Your task to perform on an android device: open app "Facebook Lite" (install if not already installed) Image 0: 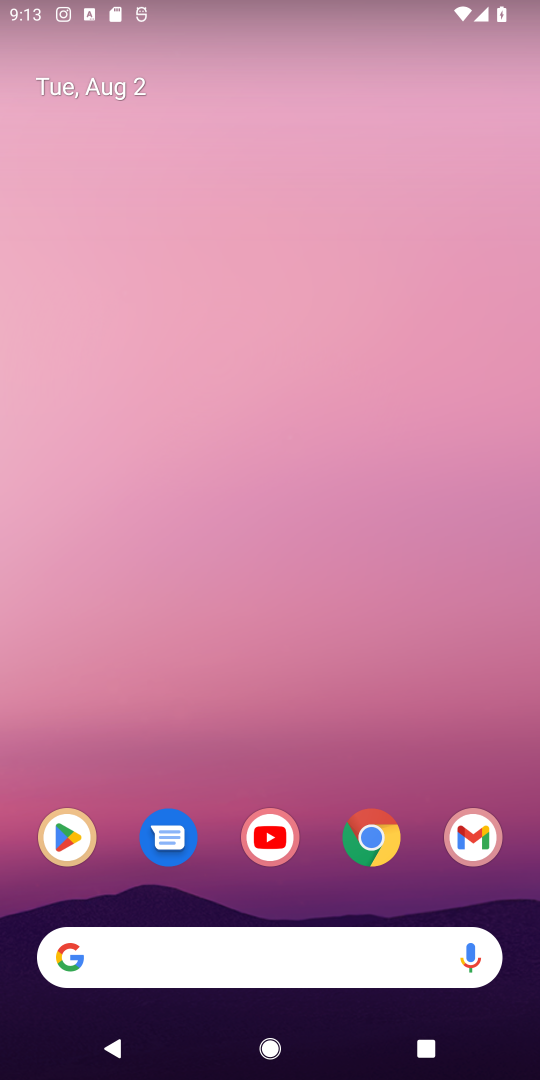
Step 0: click (64, 844)
Your task to perform on an android device: open app "Facebook Lite" (install if not already installed) Image 1: 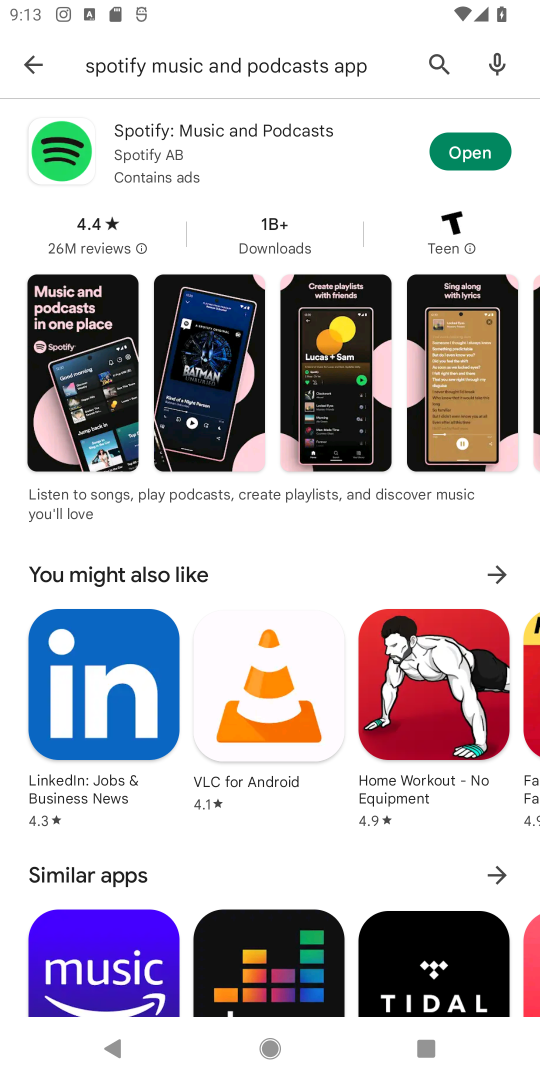
Step 1: click (428, 71)
Your task to perform on an android device: open app "Facebook Lite" (install if not already installed) Image 2: 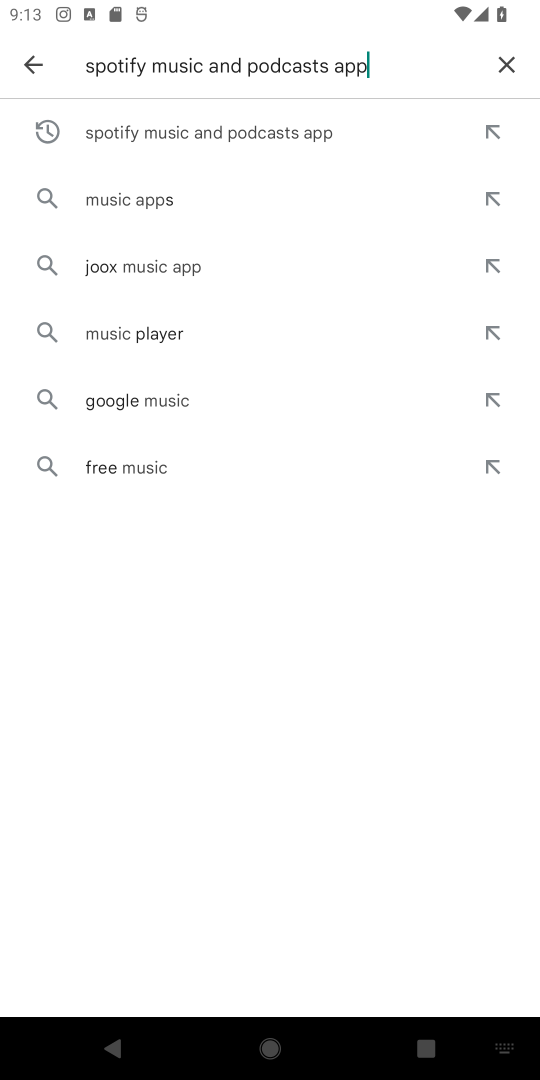
Step 2: click (502, 69)
Your task to perform on an android device: open app "Facebook Lite" (install if not already installed) Image 3: 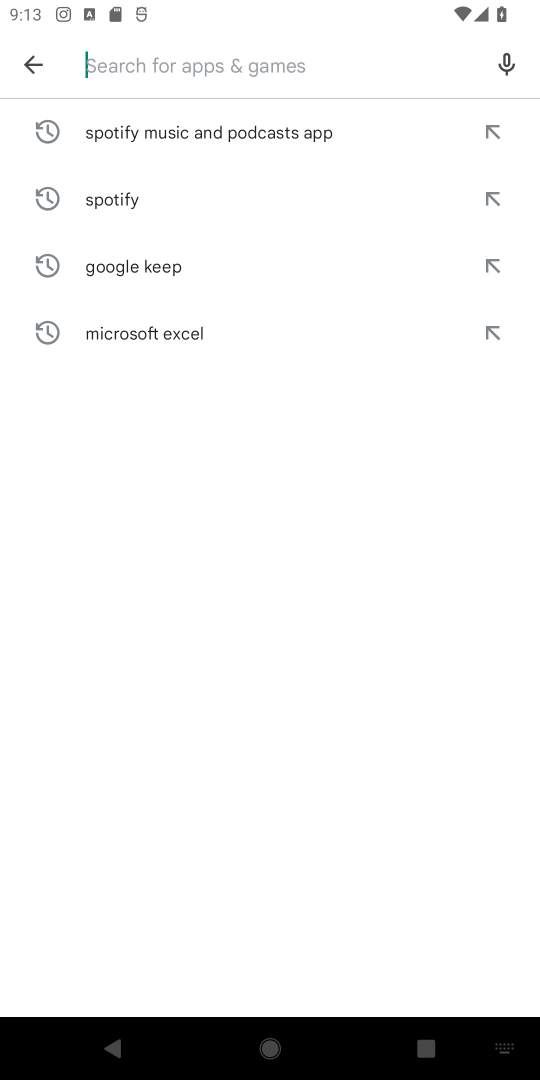
Step 3: type "Facebook Lite"
Your task to perform on an android device: open app "Facebook Lite" (install if not already installed) Image 4: 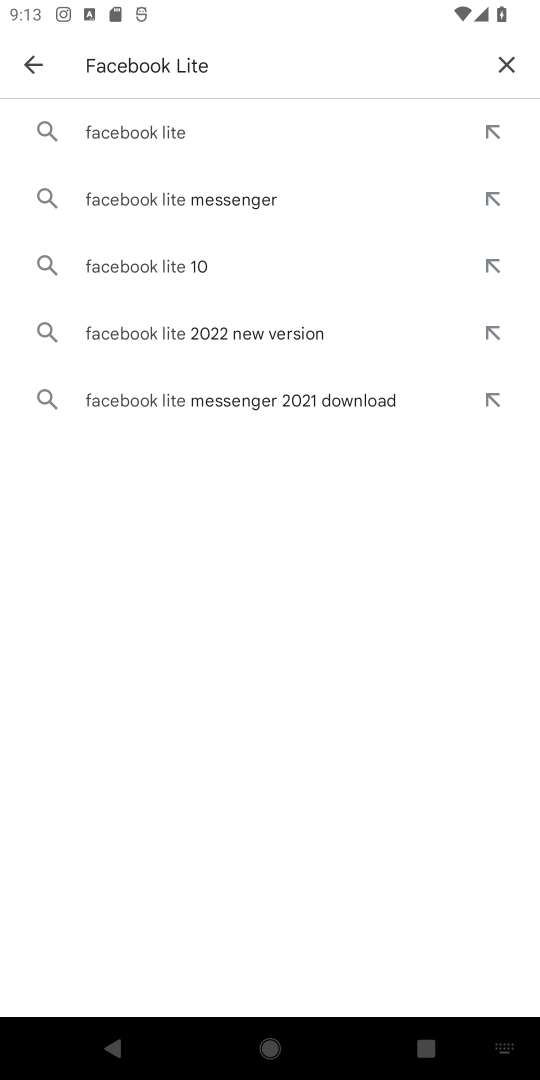
Step 4: click (107, 145)
Your task to perform on an android device: open app "Facebook Lite" (install if not already installed) Image 5: 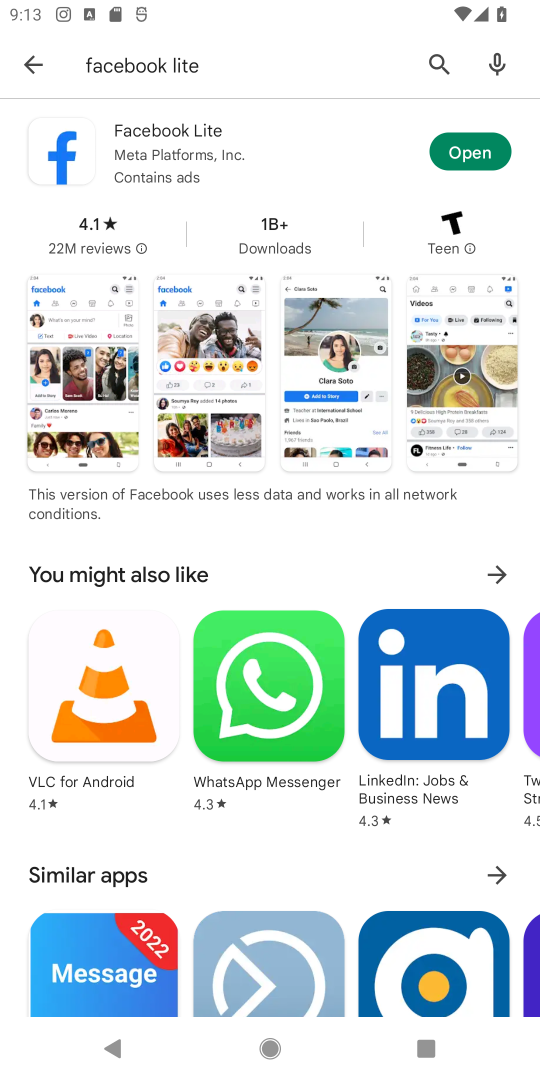
Step 5: click (465, 146)
Your task to perform on an android device: open app "Facebook Lite" (install if not already installed) Image 6: 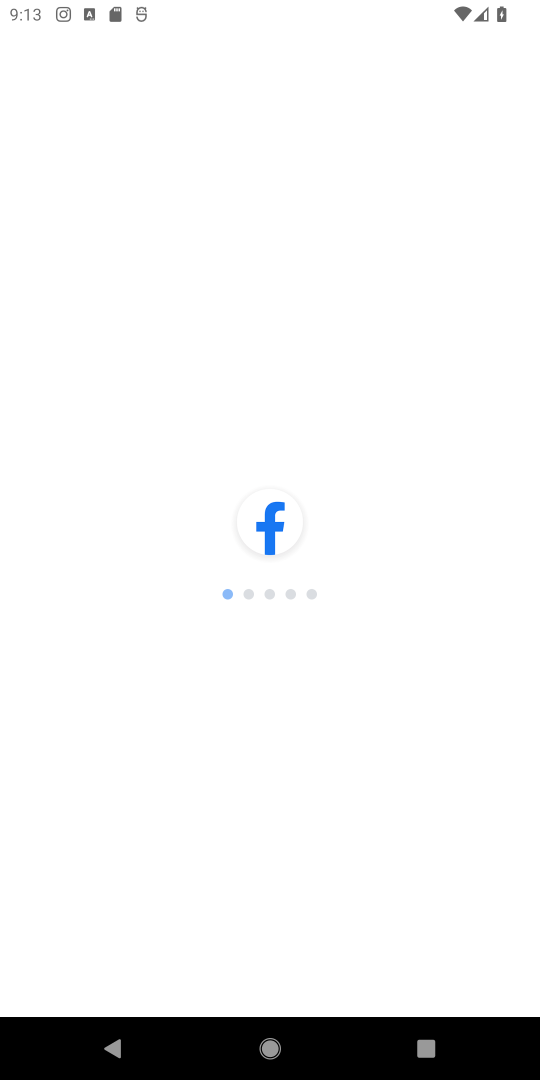
Step 6: task complete